Your task to perform on an android device: turn off location history Image 0: 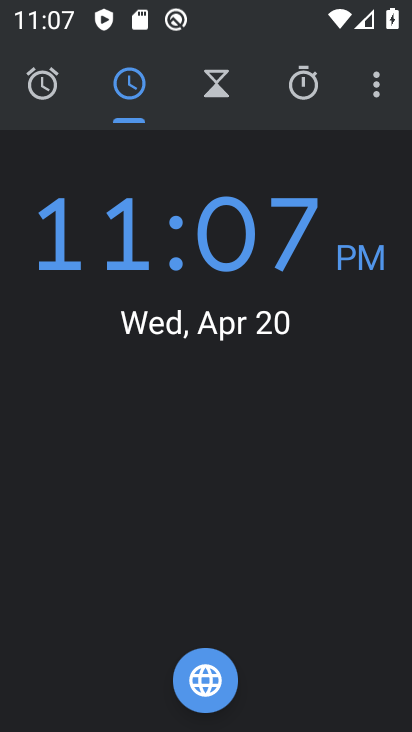
Step 0: press home button
Your task to perform on an android device: turn off location history Image 1: 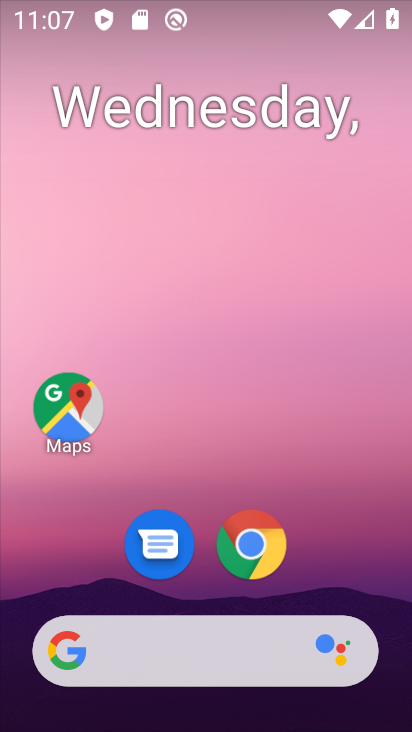
Step 1: drag from (200, 530) to (199, 256)
Your task to perform on an android device: turn off location history Image 2: 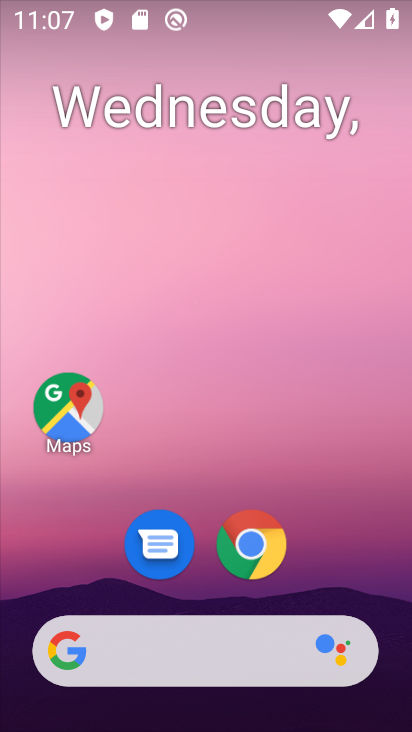
Step 2: drag from (197, 503) to (202, 163)
Your task to perform on an android device: turn off location history Image 3: 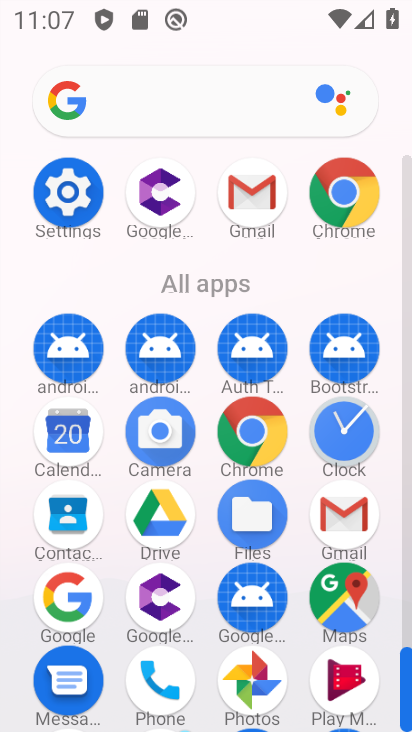
Step 3: click (53, 200)
Your task to perform on an android device: turn off location history Image 4: 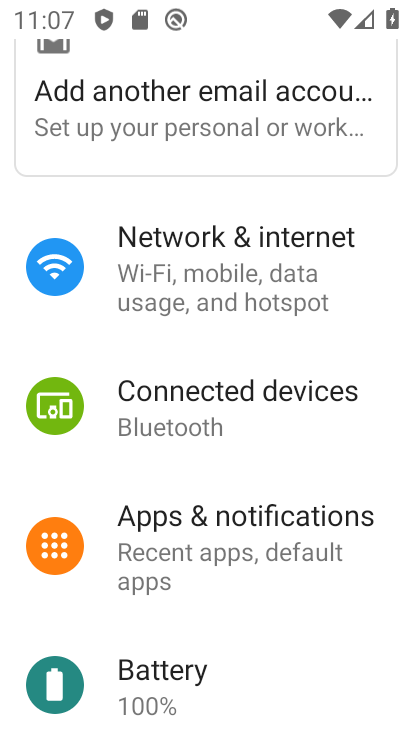
Step 4: drag from (240, 553) to (229, 181)
Your task to perform on an android device: turn off location history Image 5: 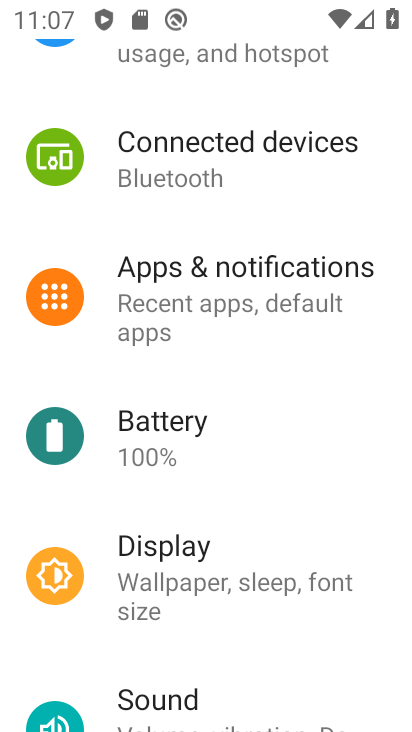
Step 5: drag from (179, 629) to (197, 348)
Your task to perform on an android device: turn off location history Image 6: 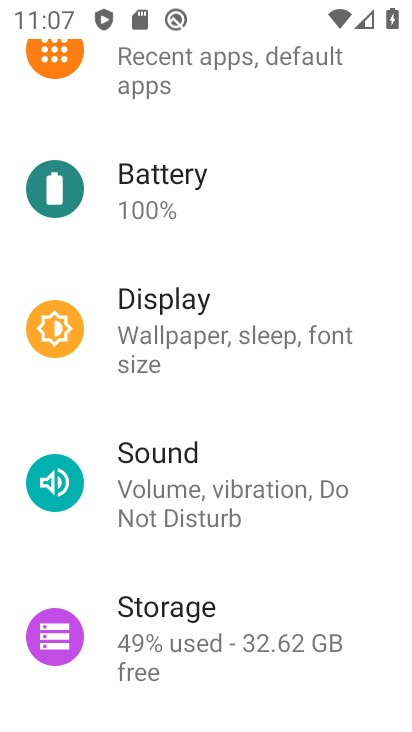
Step 6: drag from (225, 651) to (225, 279)
Your task to perform on an android device: turn off location history Image 7: 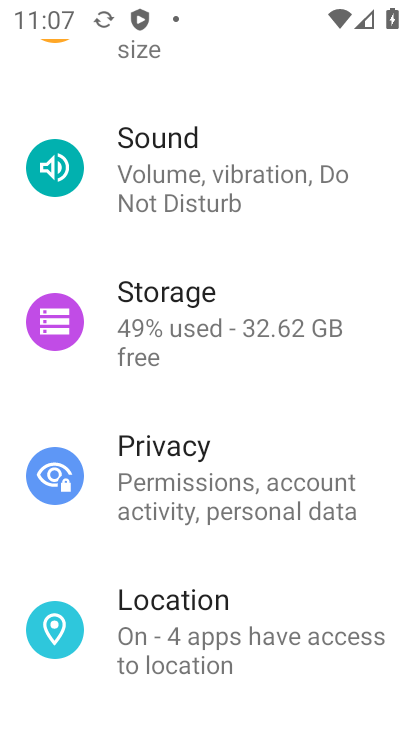
Step 7: click (211, 602)
Your task to perform on an android device: turn off location history Image 8: 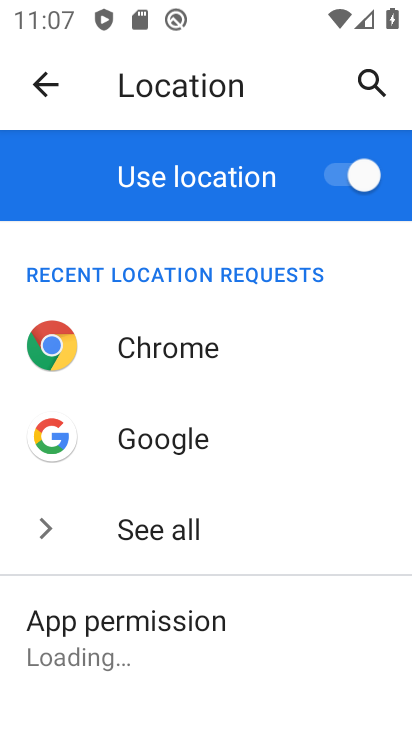
Step 8: drag from (173, 592) to (223, 222)
Your task to perform on an android device: turn off location history Image 9: 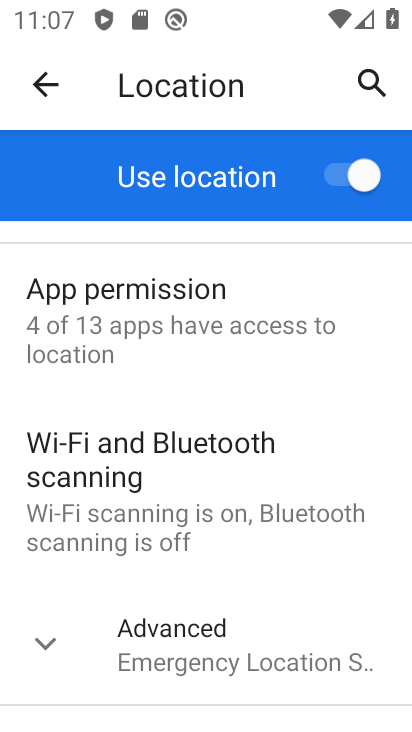
Step 9: click (176, 647)
Your task to perform on an android device: turn off location history Image 10: 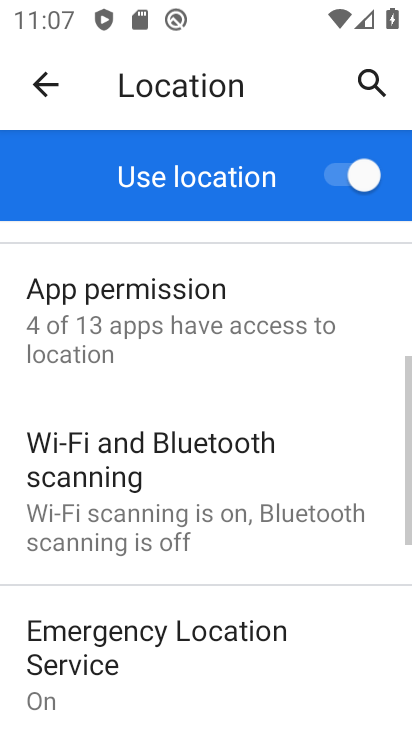
Step 10: drag from (175, 638) to (193, 374)
Your task to perform on an android device: turn off location history Image 11: 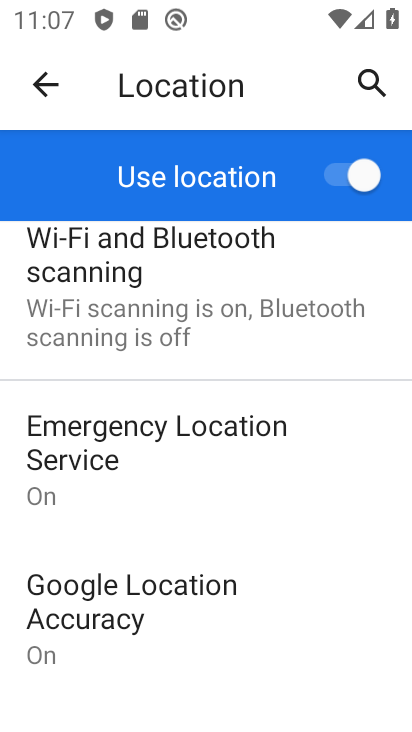
Step 11: drag from (179, 602) to (174, 358)
Your task to perform on an android device: turn off location history Image 12: 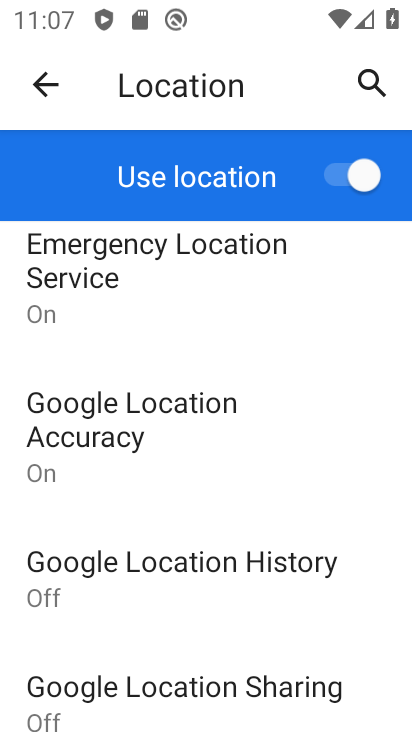
Step 12: click (179, 581)
Your task to perform on an android device: turn off location history Image 13: 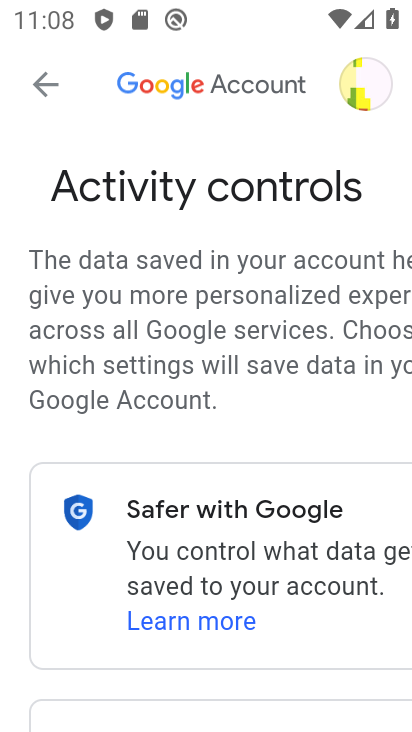
Step 13: task complete